Your task to perform on an android device: Go to battery settings Image 0: 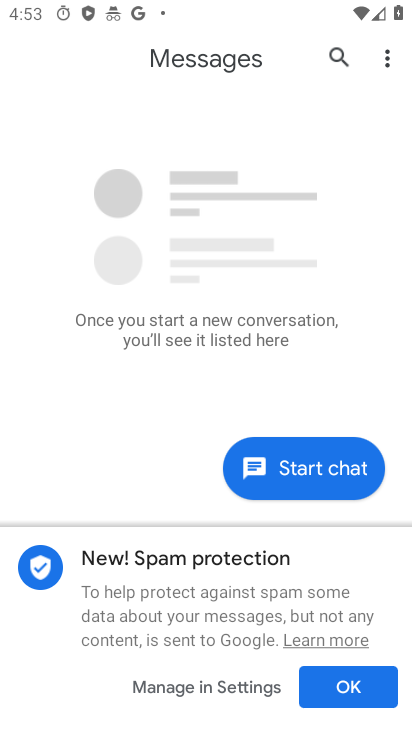
Step 0: press home button
Your task to perform on an android device: Go to battery settings Image 1: 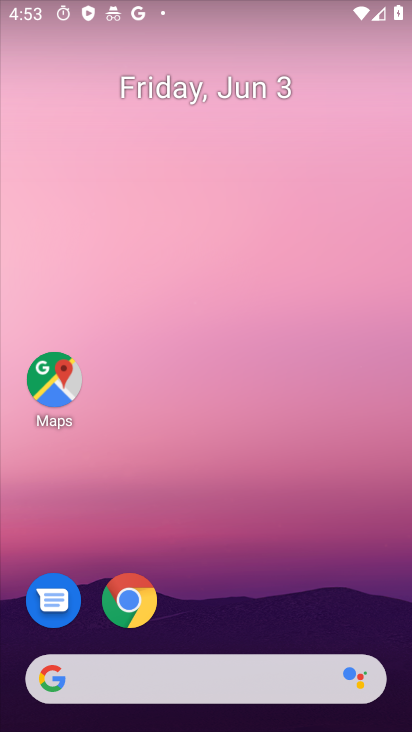
Step 1: drag from (367, 474) to (302, 94)
Your task to perform on an android device: Go to battery settings Image 2: 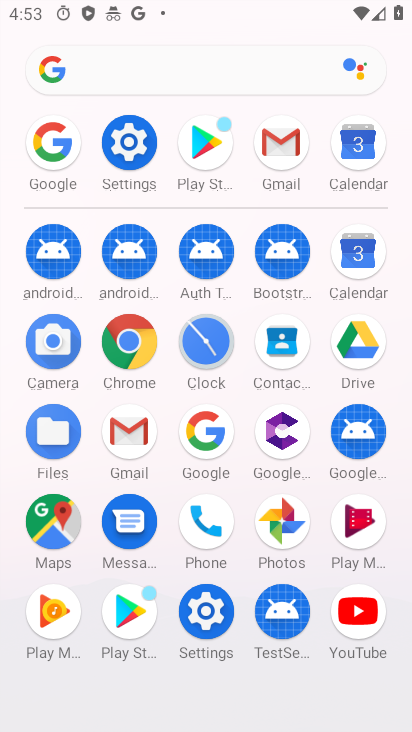
Step 2: click (133, 149)
Your task to perform on an android device: Go to battery settings Image 3: 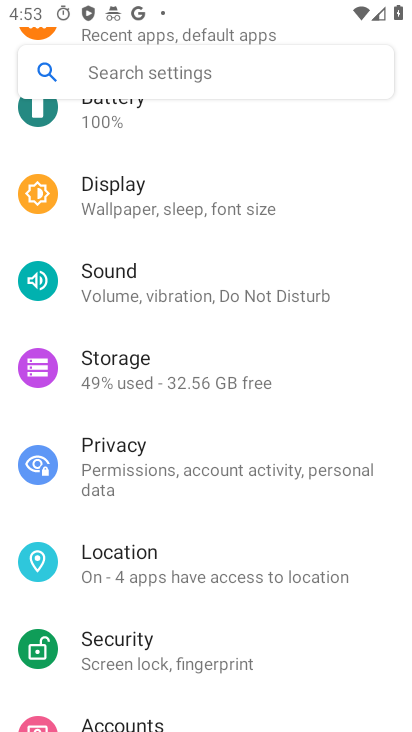
Step 3: drag from (261, 139) to (256, 480)
Your task to perform on an android device: Go to battery settings Image 4: 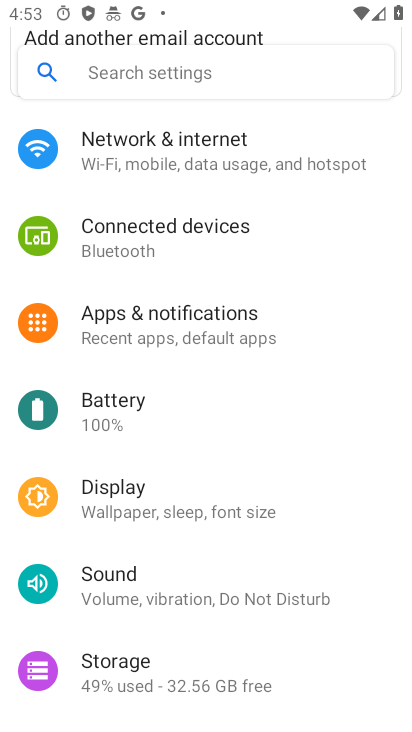
Step 4: click (87, 399)
Your task to perform on an android device: Go to battery settings Image 5: 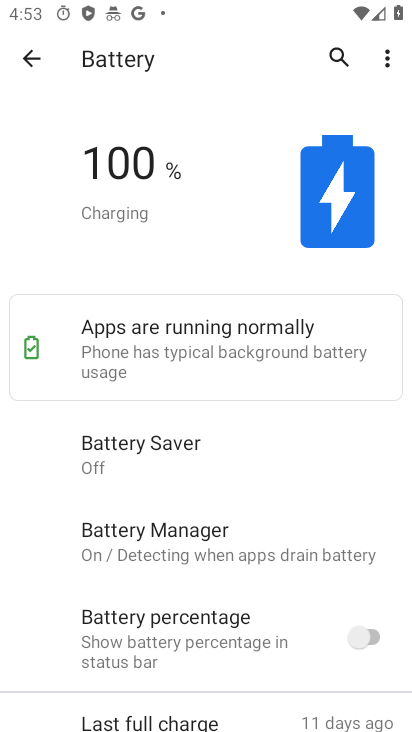
Step 5: task complete